Your task to perform on an android device: change timer sound Image 0: 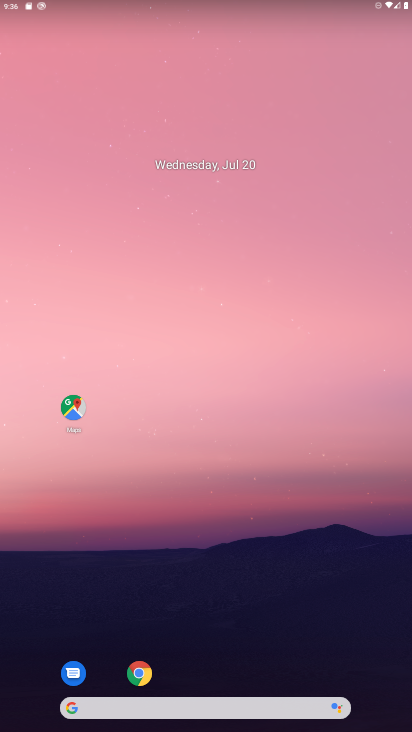
Step 0: drag from (243, 564) to (295, 113)
Your task to perform on an android device: change timer sound Image 1: 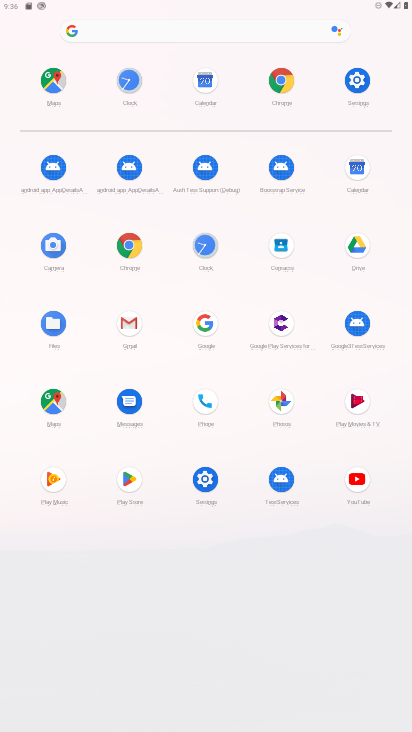
Step 1: click (201, 246)
Your task to perform on an android device: change timer sound Image 2: 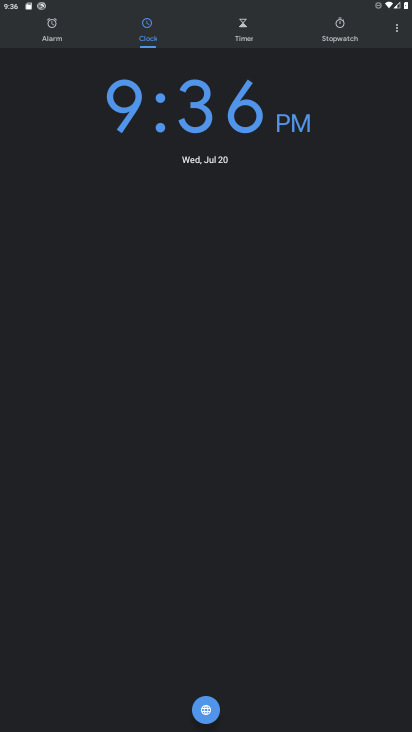
Step 2: click (246, 31)
Your task to perform on an android device: change timer sound Image 3: 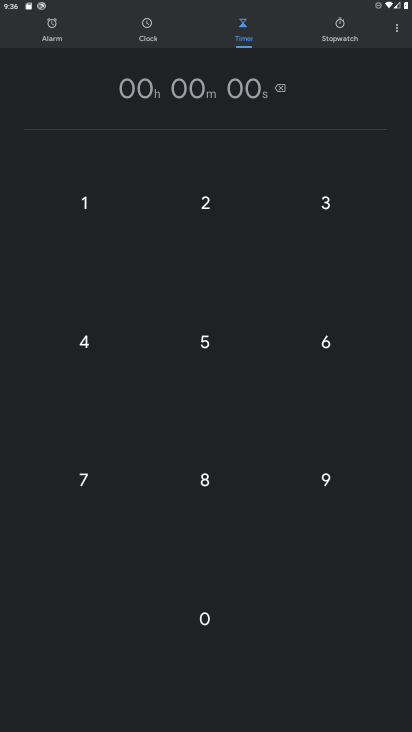
Step 3: click (210, 198)
Your task to perform on an android device: change timer sound Image 4: 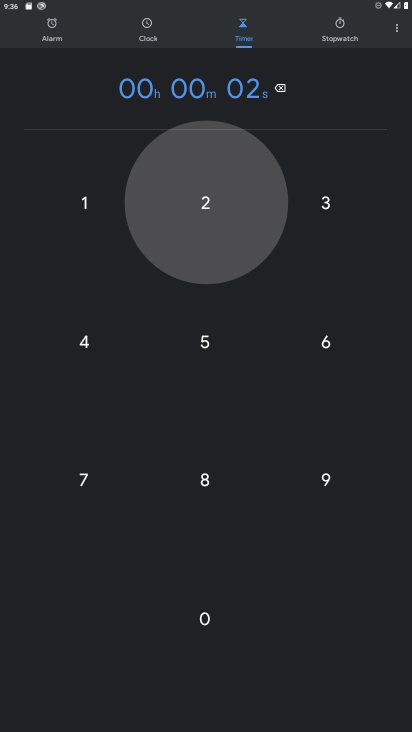
Step 4: click (321, 191)
Your task to perform on an android device: change timer sound Image 5: 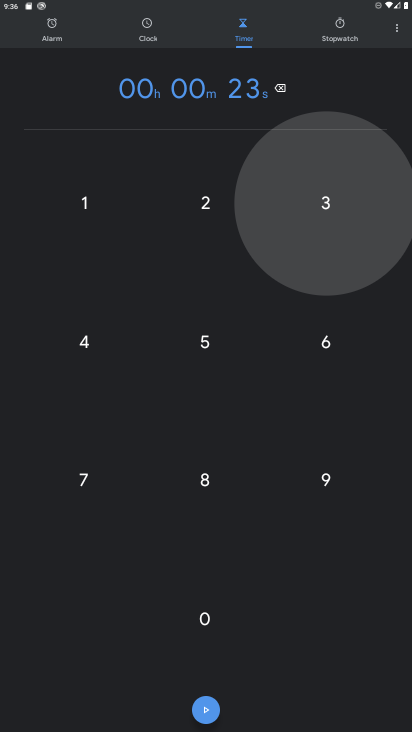
Step 5: click (223, 290)
Your task to perform on an android device: change timer sound Image 6: 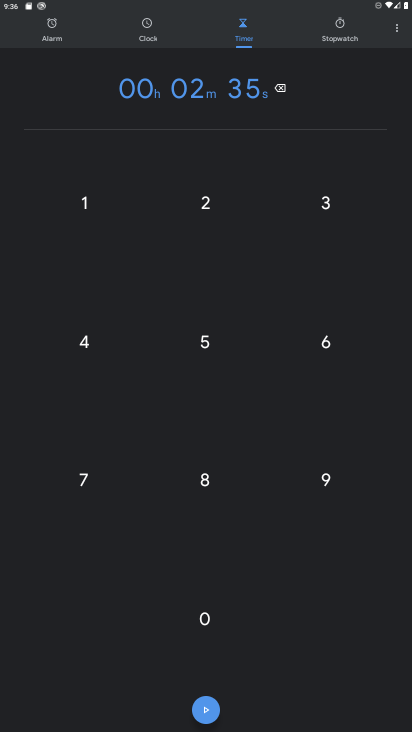
Step 6: click (198, 710)
Your task to perform on an android device: change timer sound Image 7: 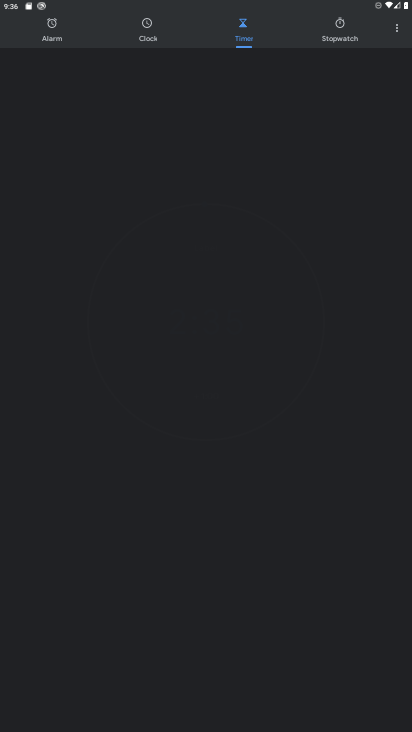
Step 7: task complete